Your task to perform on an android device: turn on translation in the chrome app Image 0: 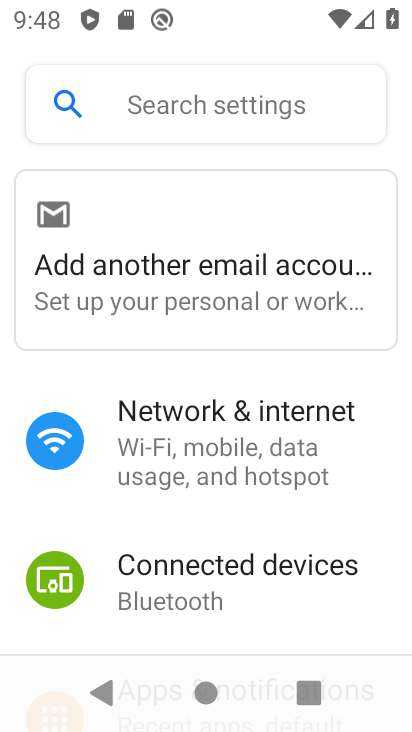
Step 0: press home button
Your task to perform on an android device: turn on translation in the chrome app Image 1: 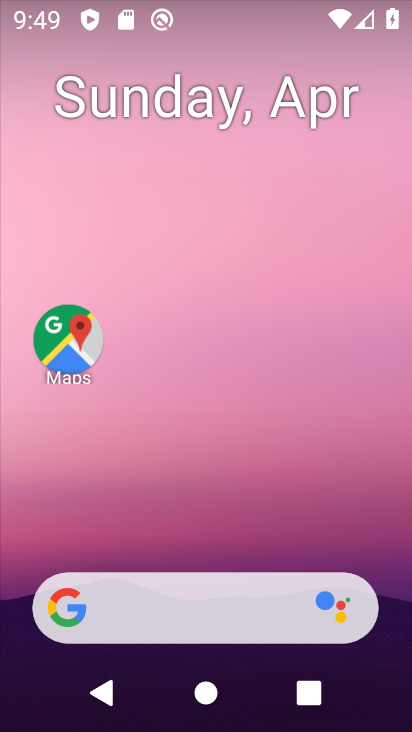
Step 1: drag from (216, 725) to (220, 57)
Your task to perform on an android device: turn on translation in the chrome app Image 2: 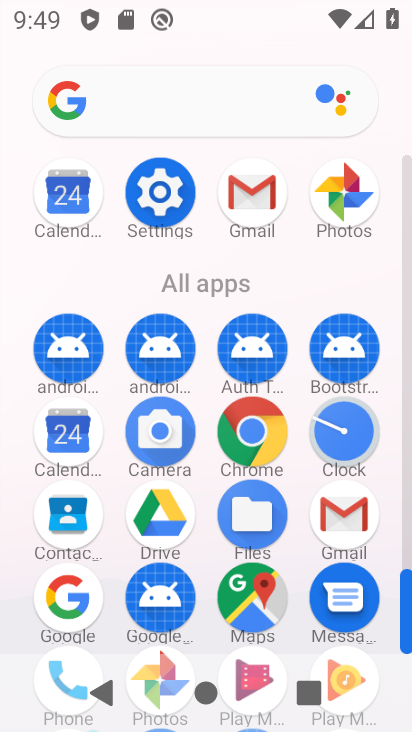
Step 2: click (256, 434)
Your task to perform on an android device: turn on translation in the chrome app Image 3: 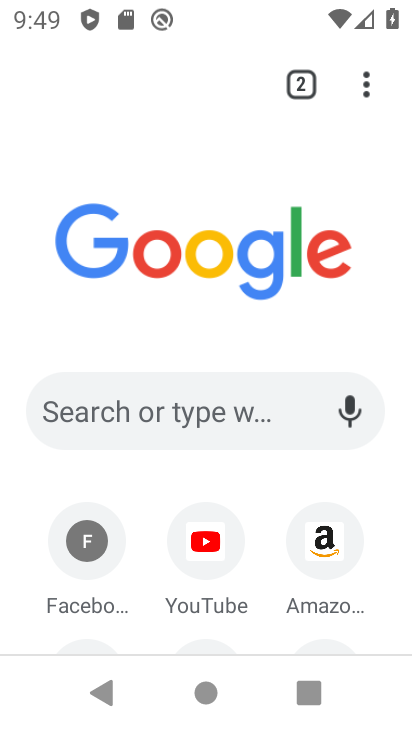
Step 3: drag from (365, 83) to (227, 503)
Your task to perform on an android device: turn on translation in the chrome app Image 4: 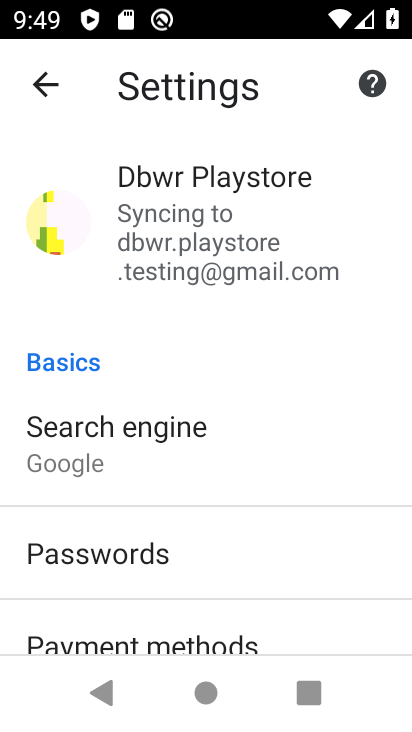
Step 4: drag from (224, 636) to (242, 236)
Your task to perform on an android device: turn on translation in the chrome app Image 5: 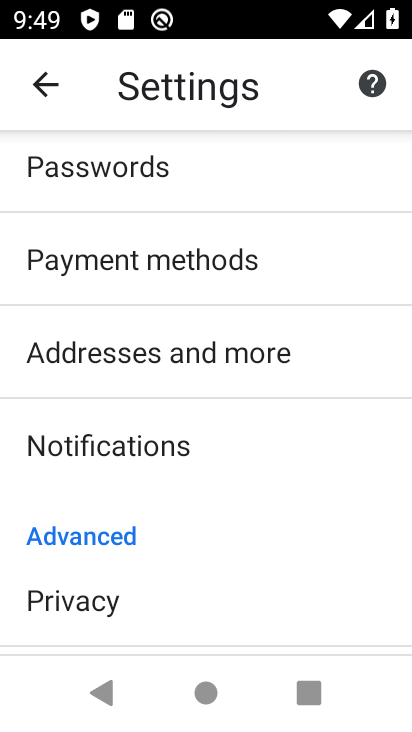
Step 5: drag from (190, 616) to (207, 291)
Your task to perform on an android device: turn on translation in the chrome app Image 6: 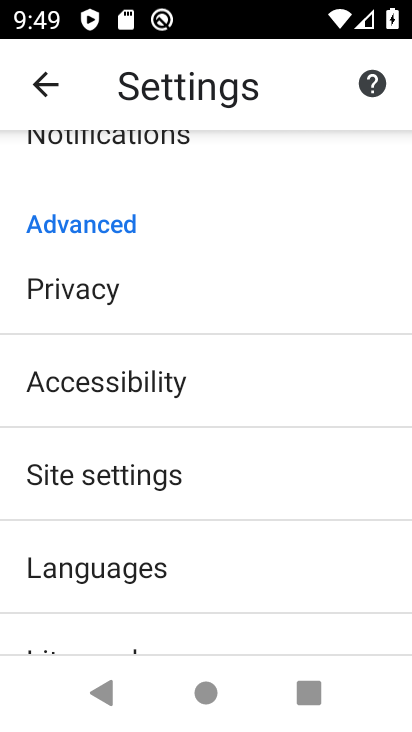
Step 6: click (145, 571)
Your task to perform on an android device: turn on translation in the chrome app Image 7: 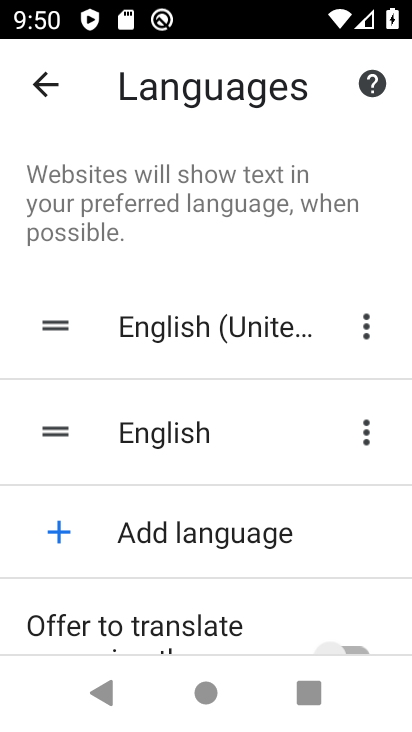
Step 7: drag from (243, 625) to (247, 326)
Your task to perform on an android device: turn on translation in the chrome app Image 8: 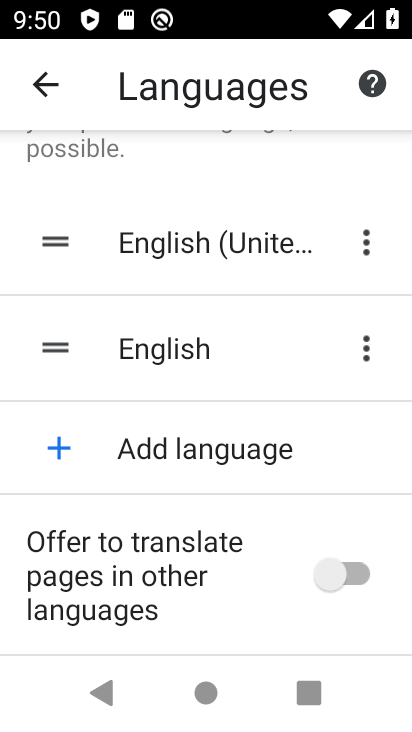
Step 8: click (354, 577)
Your task to perform on an android device: turn on translation in the chrome app Image 9: 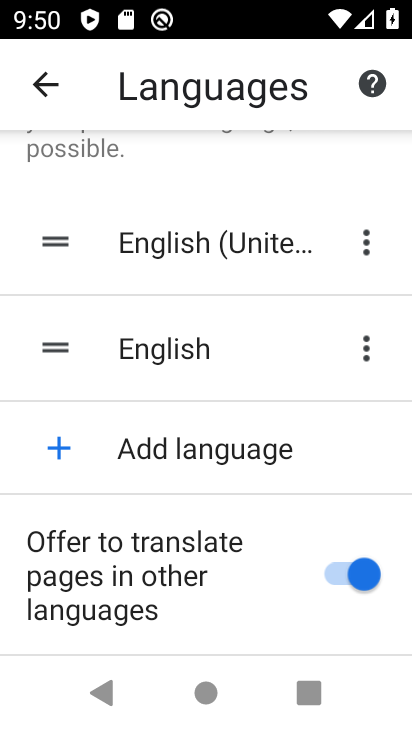
Step 9: task complete